Your task to perform on an android device: turn on showing notifications on the lock screen Image 0: 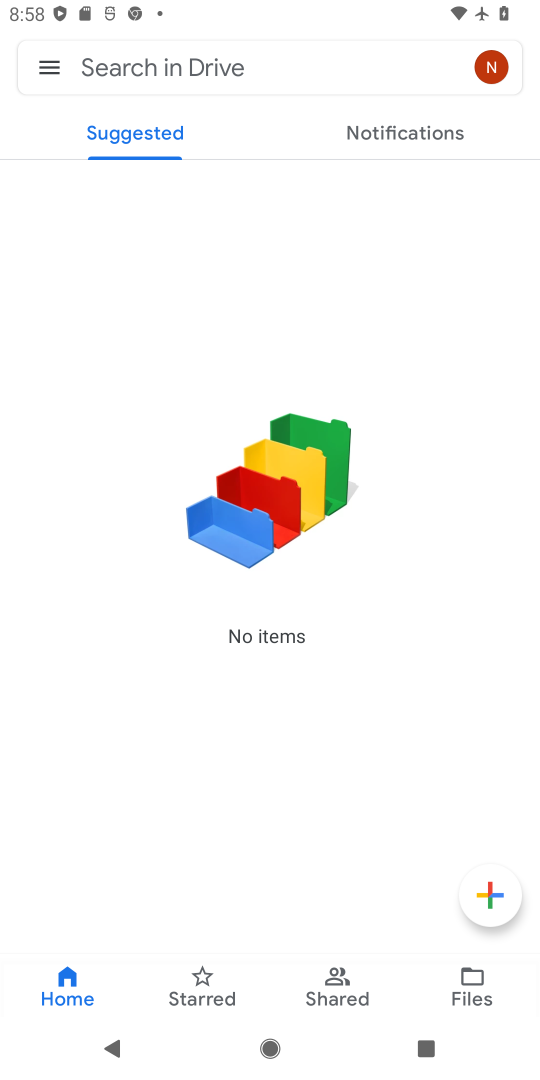
Step 0: press home button
Your task to perform on an android device: turn on showing notifications on the lock screen Image 1: 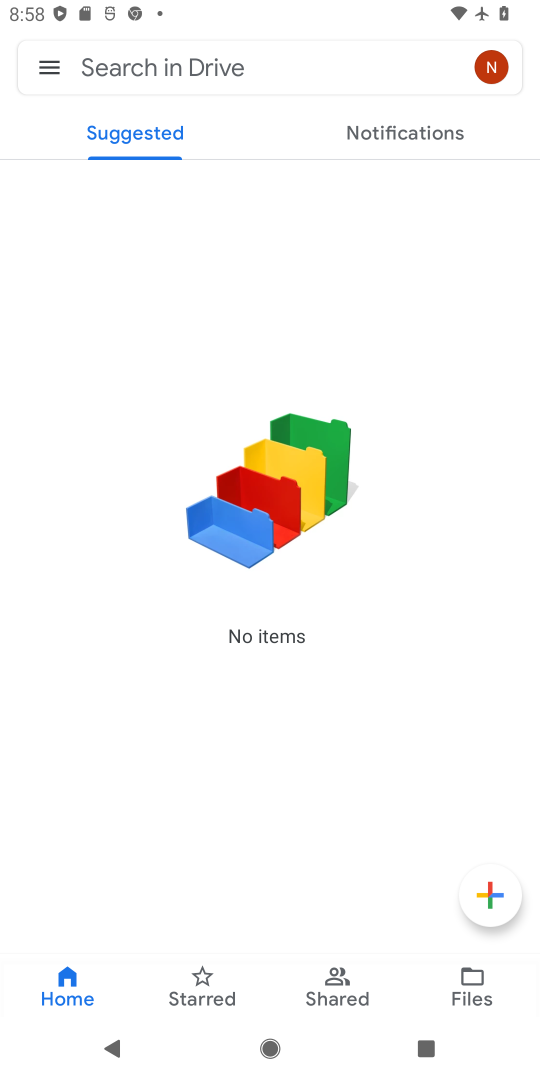
Step 1: press home button
Your task to perform on an android device: turn on showing notifications on the lock screen Image 2: 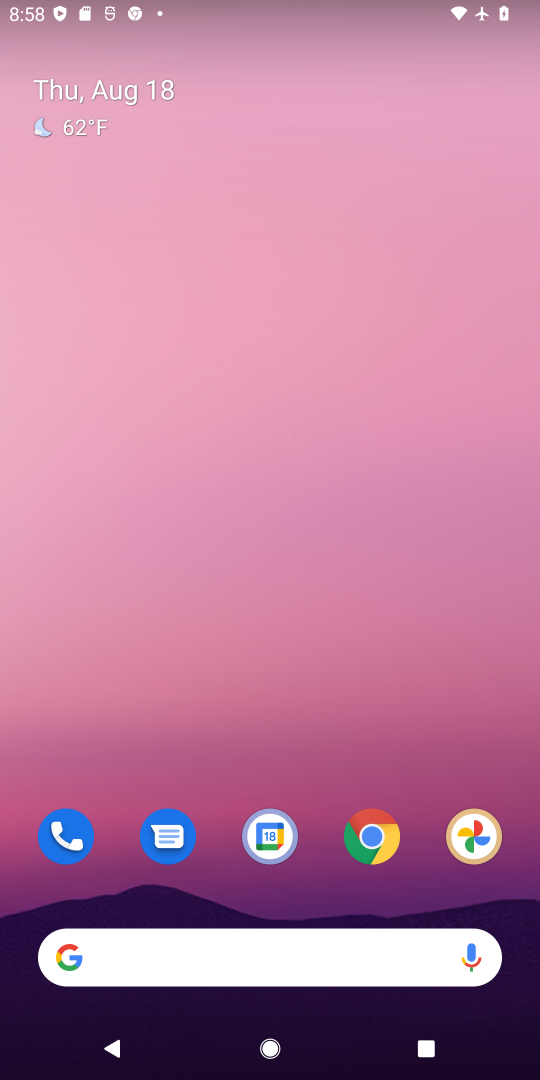
Step 2: drag from (316, 616) to (538, 540)
Your task to perform on an android device: turn on showing notifications on the lock screen Image 3: 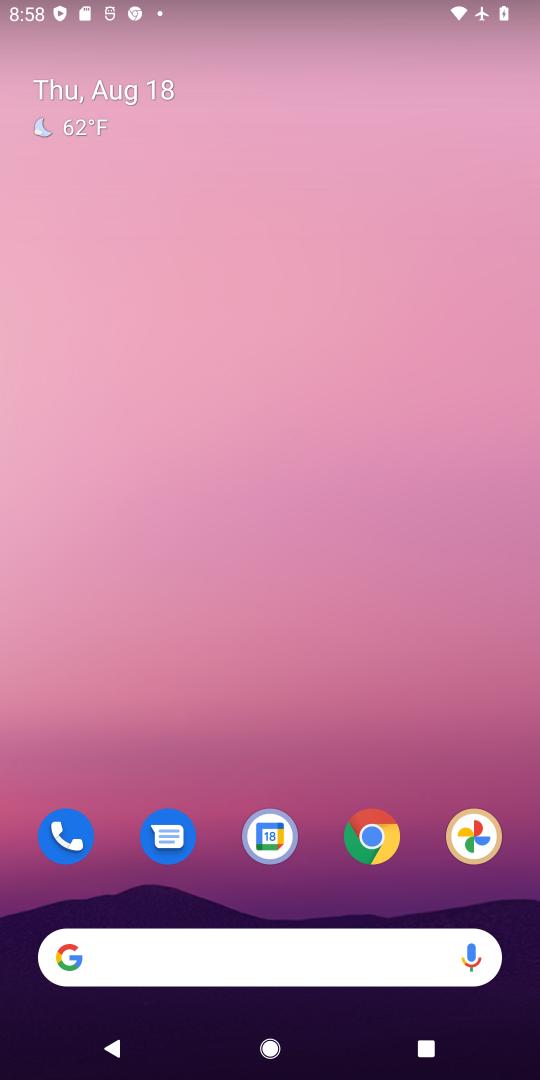
Step 3: click (474, 654)
Your task to perform on an android device: turn on showing notifications on the lock screen Image 4: 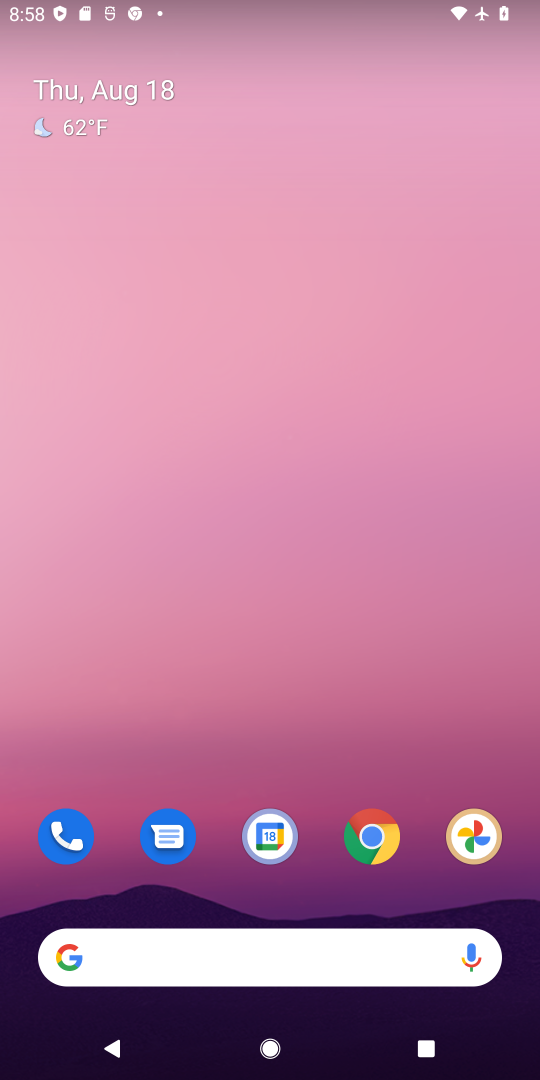
Step 4: drag from (363, 697) to (343, 6)
Your task to perform on an android device: turn on showing notifications on the lock screen Image 5: 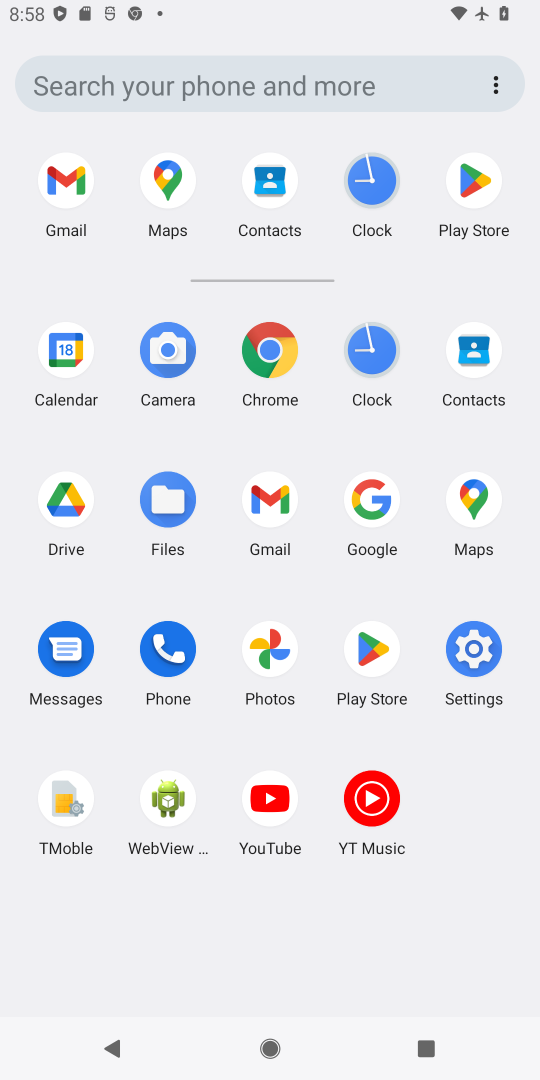
Step 5: click (488, 651)
Your task to perform on an android device: turn on showing notifications on the lock screen Image 6: 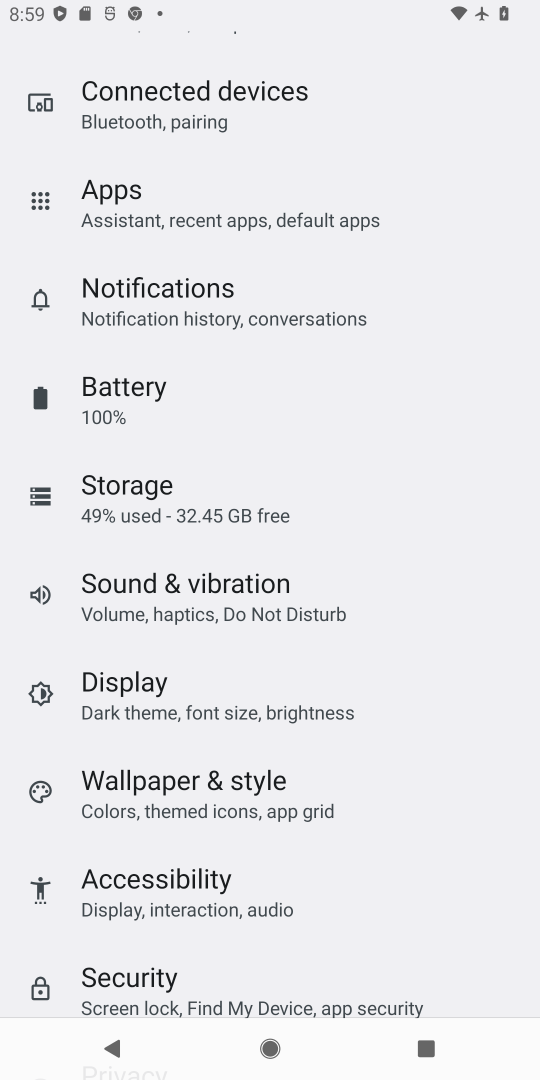
Step 6: click (253, 289)
Your task to perform on an android device: turn on showing notifications on the lock screen Image 7: 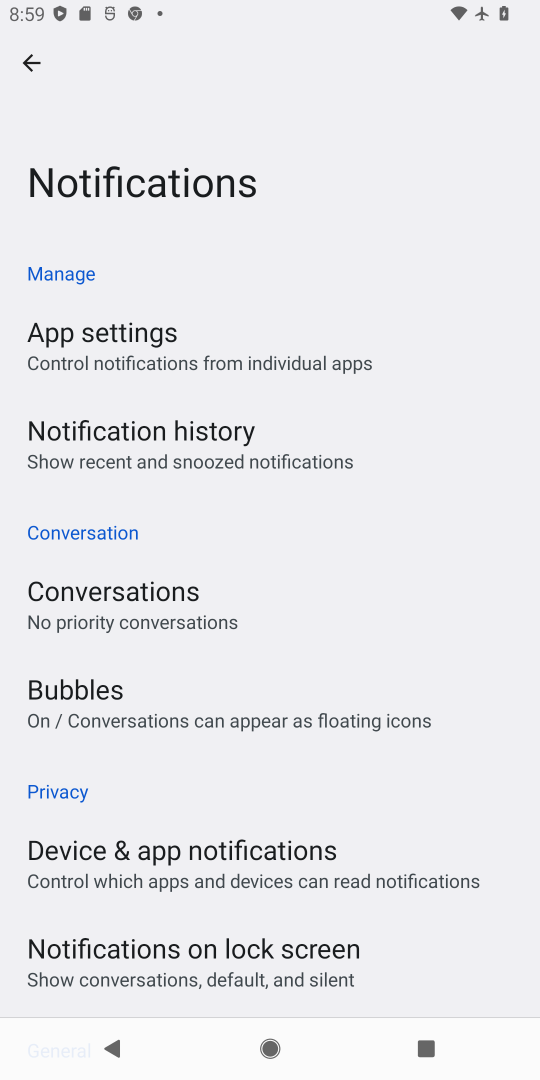
Step 7: click (289, 940)
Your task to perform on an android device: turn on showing notifications on the lock screen Image 8: 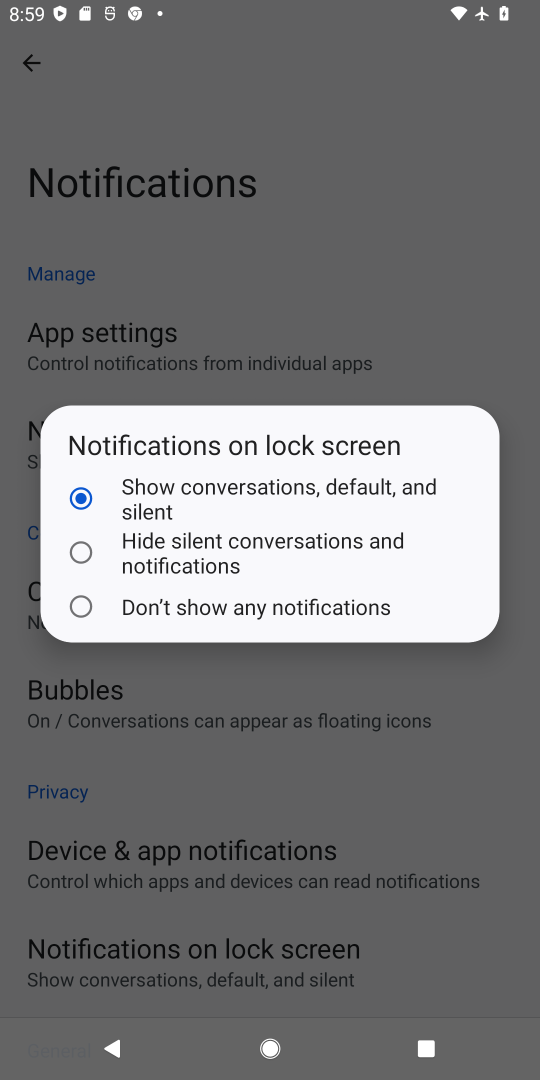
Step 8: task complete